Your task to perform on an android device: Go to display settings Image 0: 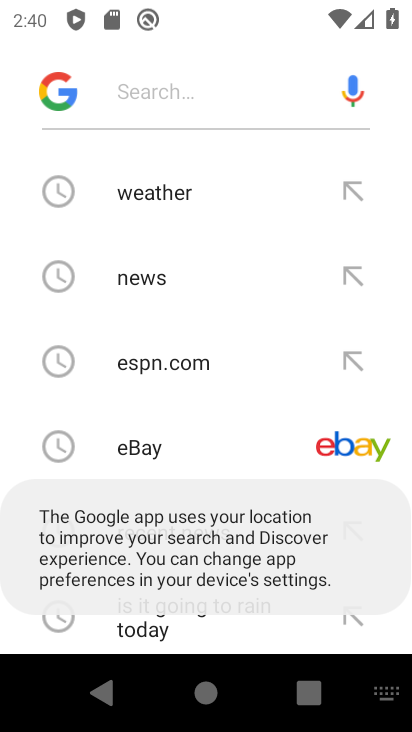
Step 0: press back button
Your task to perform on an android device: Go to display settings Image 1: 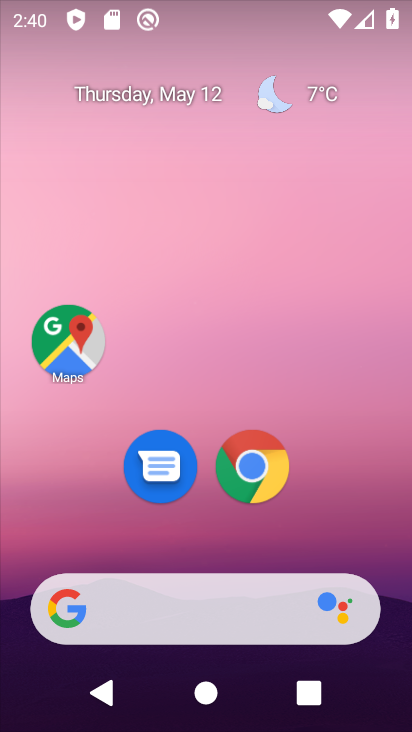
Step 1: drag from (322, 508) to (259, 25)
Your task to perform on an android device: Go to display settings Image 2: 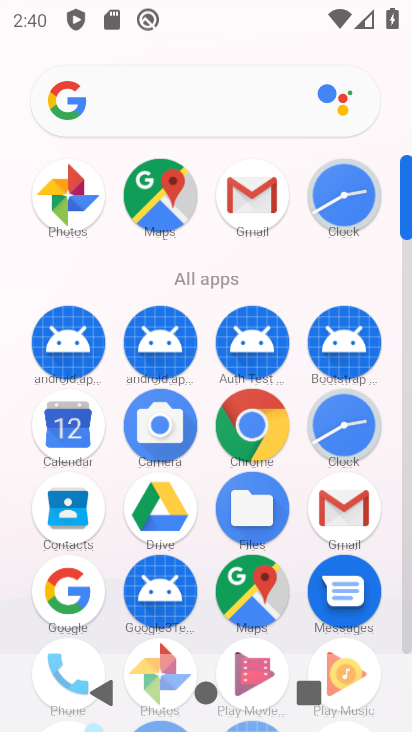
Step 2: drag from (14, 606) to (11, 323)
Your task to perform on an android device: Go to display settings Image 3: 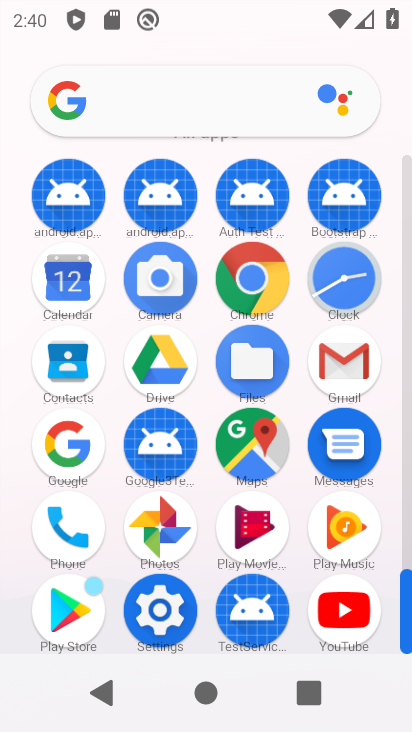
Step 3: click (158, 609)
Your task to perform on an android device: Go to display settings Image 4: 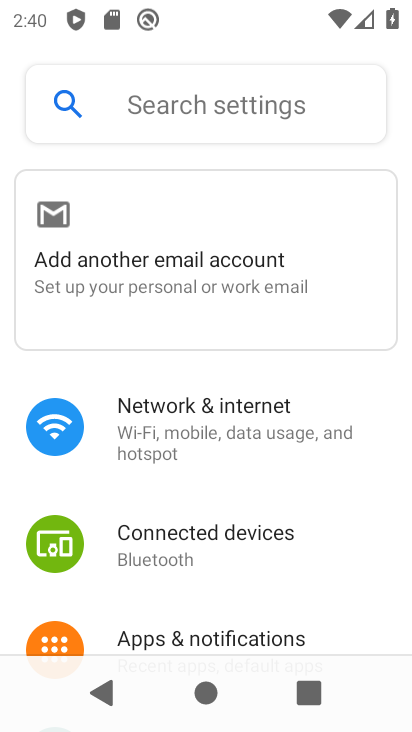
Step 4: drag from (285, 541) to (294, 259)
Your task to perform on an android device: Go to display settings Image 5: 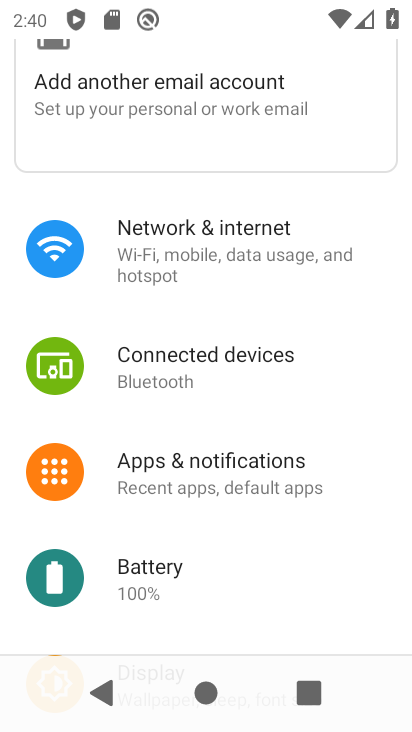
Step 5: drag from (308, 494) to (333, 260)
Your task to perform on an android device: Go to display settings Image 6: 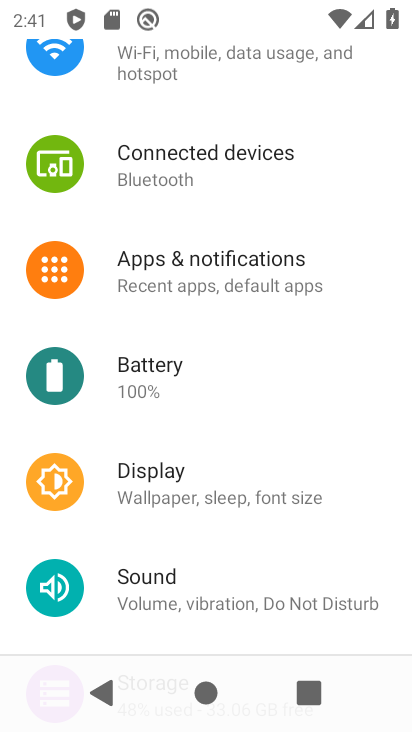
Step 6: click (187, 464)
Your task to perform on an android device: Go to display settings Image 7: 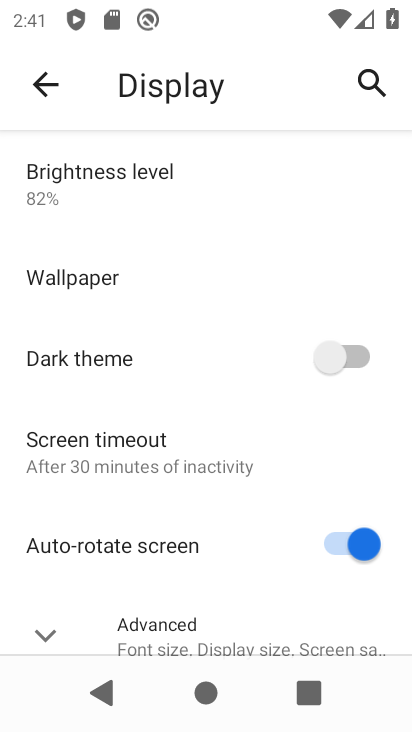
Step 7: drag from (164, 563) to (194, 205)
Your task to perform on an android device: Go to display settings Image 8: 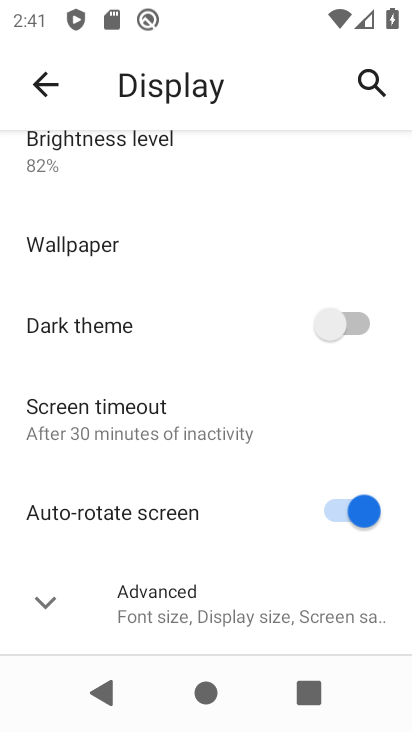
Step 8: click (54, 590)
Your task to perform on an android device: Go to display settings Image 9: 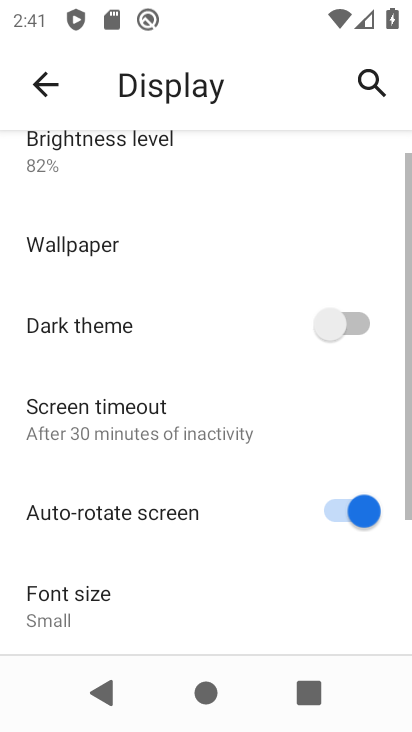
Step 9: task complete